Your task to perform on an android device: When is my next appointment? Image 0: 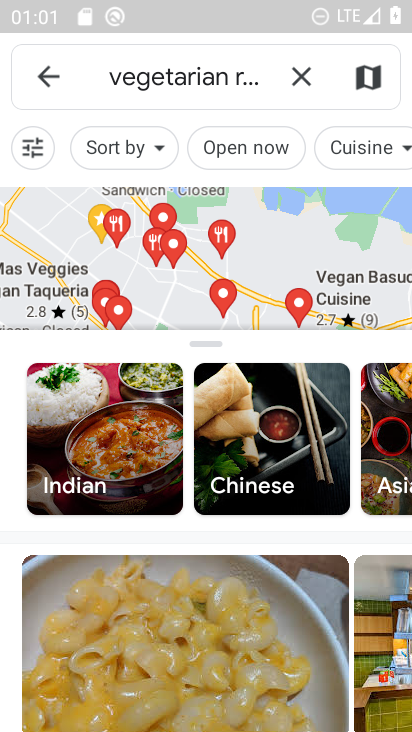
Step 0: press home button
Your task to perform on an android device: When is my next appointment? Image 1: 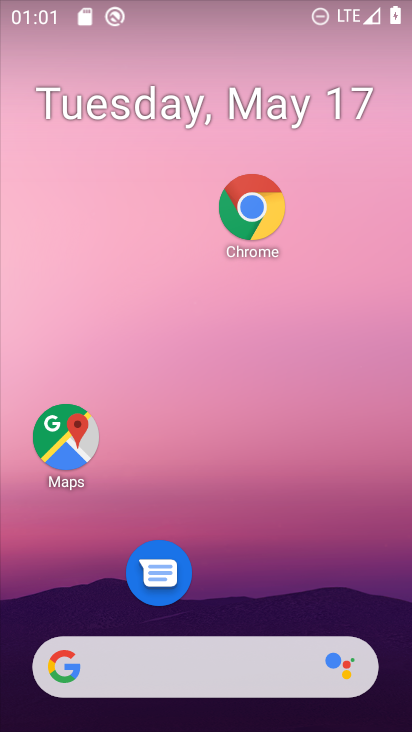
Step 1: drag from (267, 681) to (312, 67)
Your task to perform on an android device: When is my next appointment? Image 2: 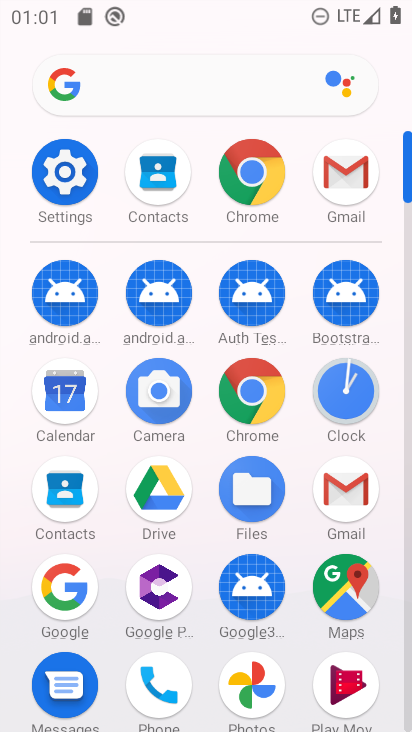
Step 2: click (91, 387)
Your task to perform on an android device: When is my next appointment? Image 3: 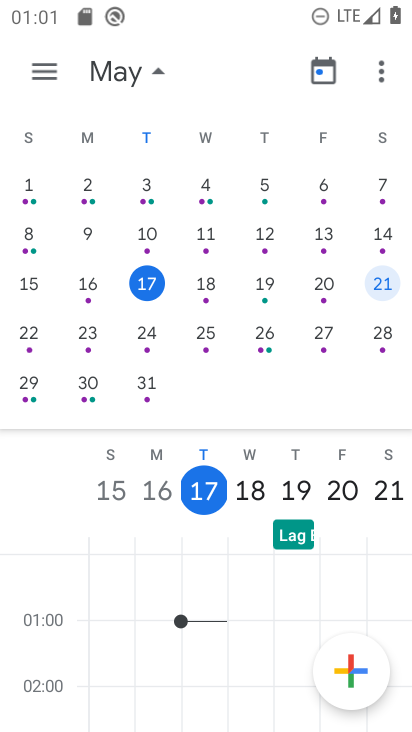
Step 3: click (154, 284)
Your task to perform on an android device: When is my next appointment? Image 4: 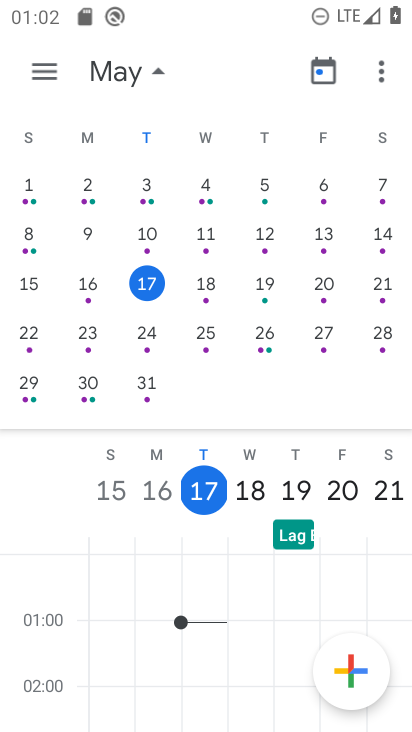
Step 4: task complete